Your task to perform on an android device: turn off notifications in google photos Image 0: 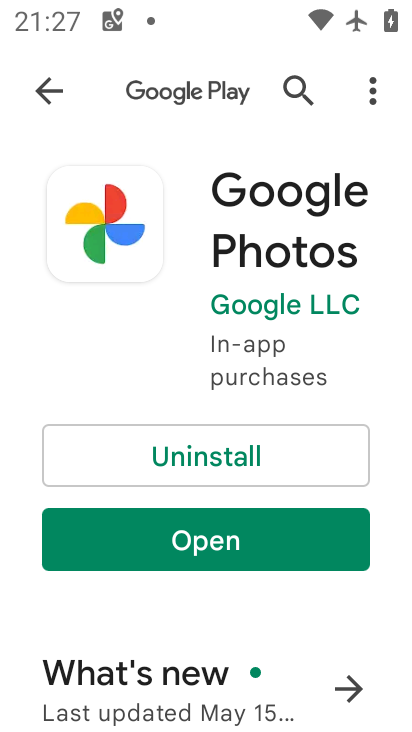
Step 0: press home button
Your task to perform on an android device: turn off notifications in google photos Image 1: 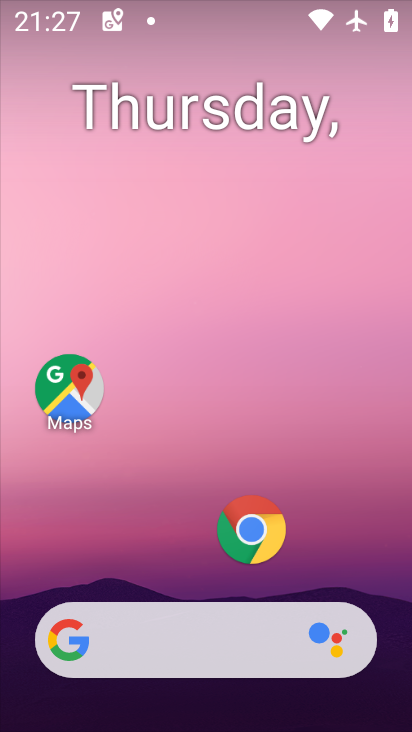
Step 1: drag from (196, 585) to (212, 65)
Your task to perform on an android device: turn off notifications in google photos Image 2: 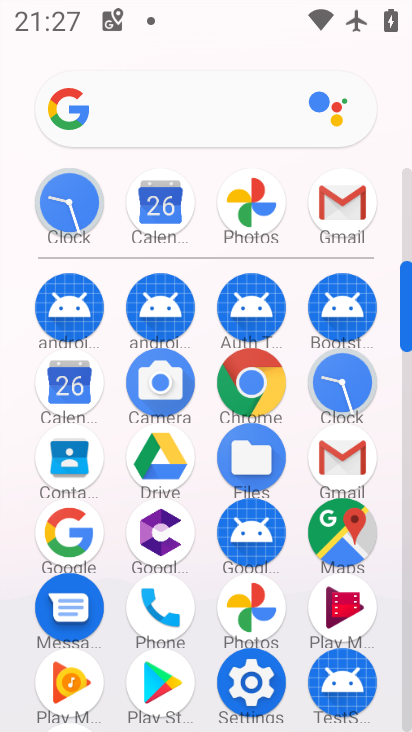
Step 2: click (248, 599)
Your task to perform on an android device: turn off notifications in google photos Image 3: 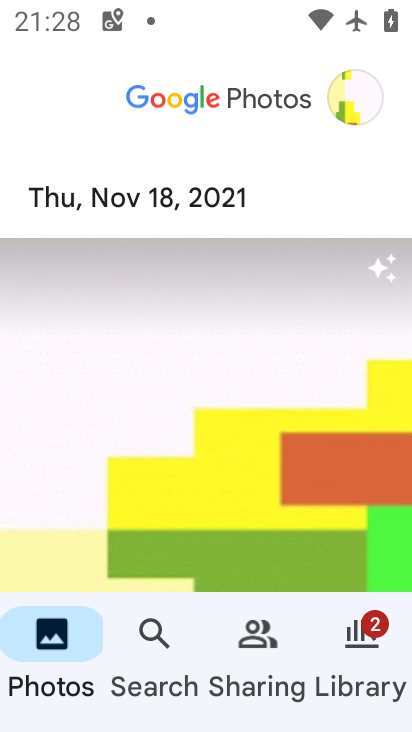
Step 3: click (348, 85)
Your task to perform on an android device: turn off notifications in google photos Image 4: 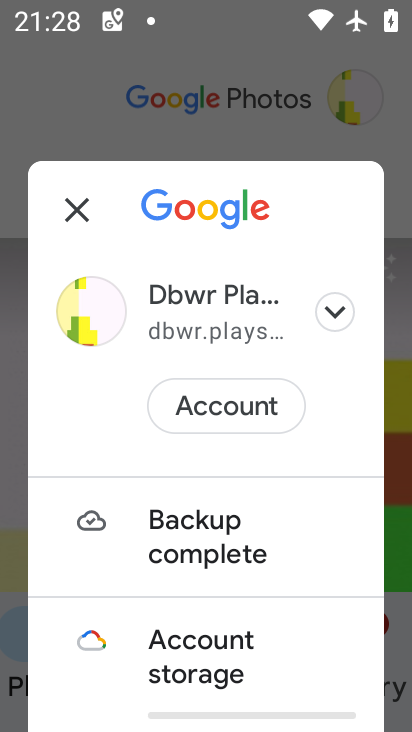
Step 4: drag from (255, 652) to (254, 270)
Your task to perform on an android device: turn off notifications in google photos Image 5: 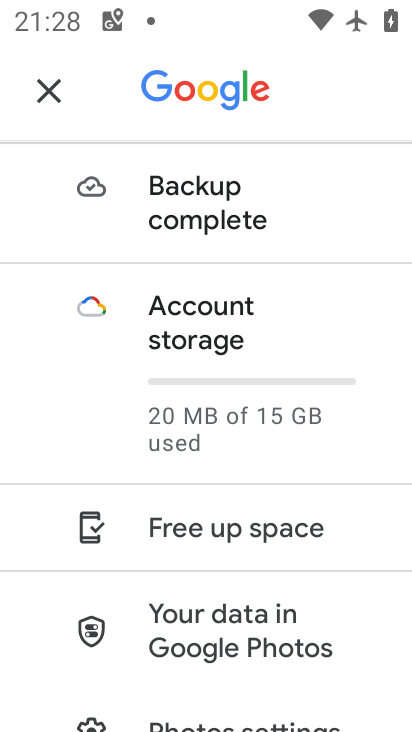
Step 5: drag from (211, 663) to (273, 333)
Your task to perform on an android device: turn off notifications in google photos Image 6: 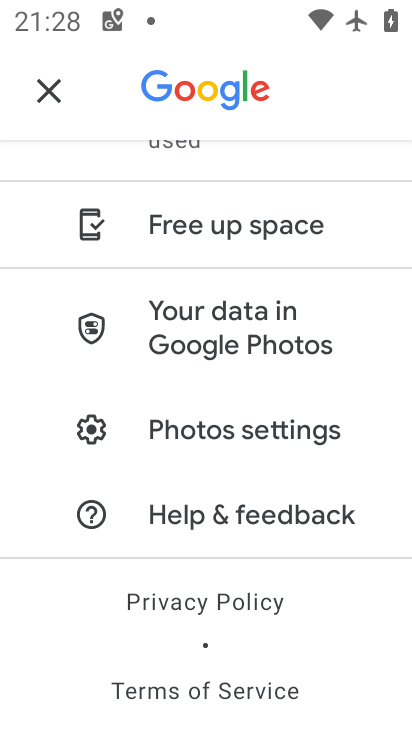
Step 6: click (119, 423)
Your task to perform on an android device: turn off notifications in google photos Image 7: 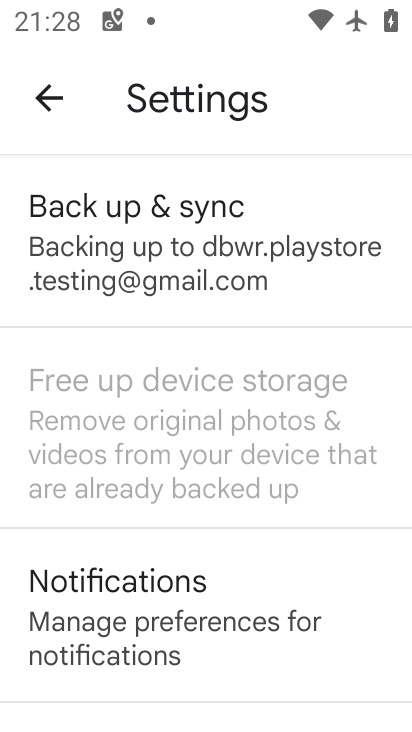
Step 7: click (212, 647)
Your task to perform on an android device: turn off notifications in google photos Image 8: 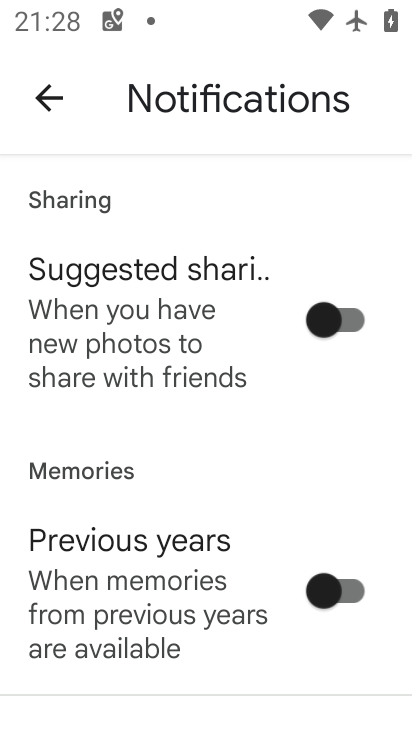
Step 8: drag from (192, 659) to (214, 134)
Your task to perform on an android device: turn off notifications in google photos Image 9: 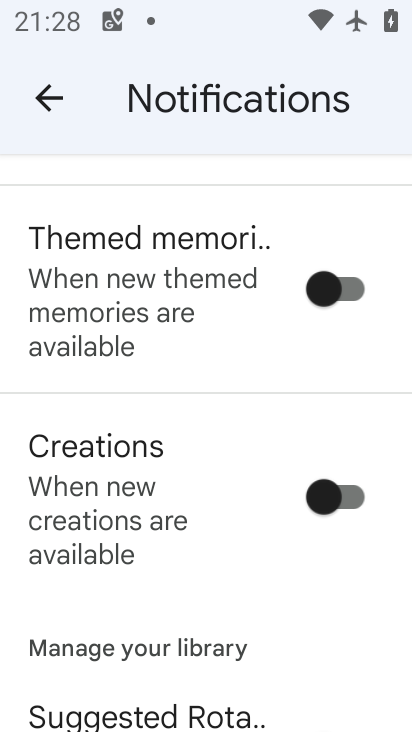
Step 9: drag from (197, 691) to (220, 124)
Your task to perform on an android device: turn off notifications in google photos Image 10: 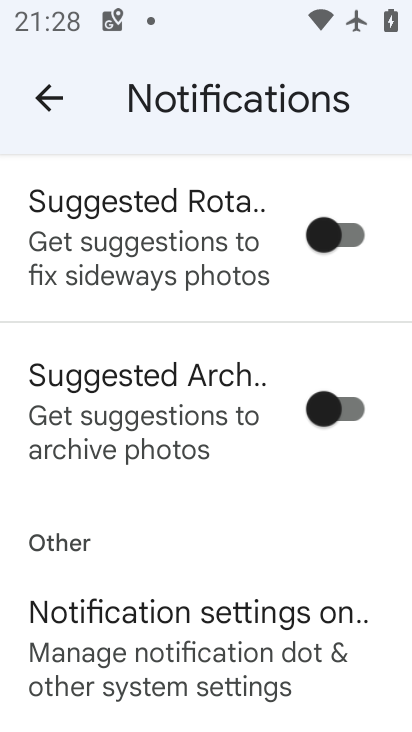
Step 10: click (300, 671)
Your task to perform on an android device: turn off notifications in google photos Image 11: 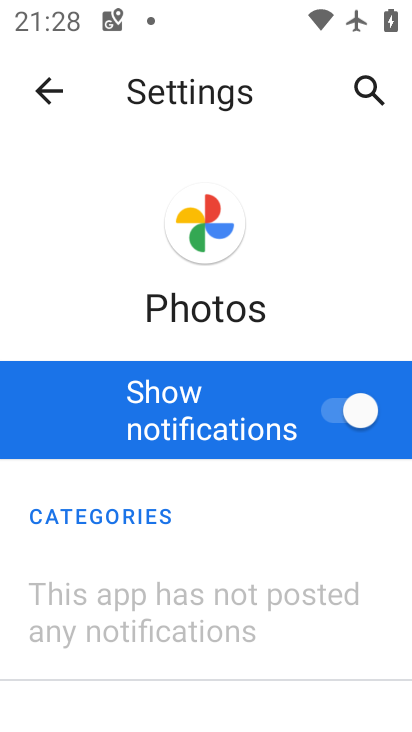
Step 11: click (339, 405)
Your task to perform on an android device: turn off notifications in google photos Image 12: 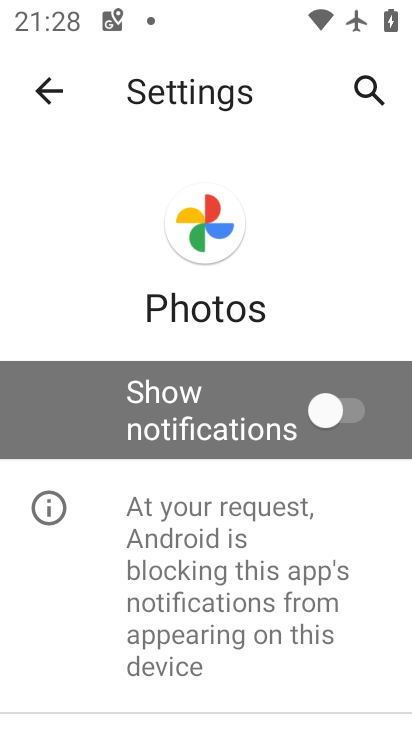
Step 12: task complete